Your task to perform on an android device: change text size in settings app Image 0: 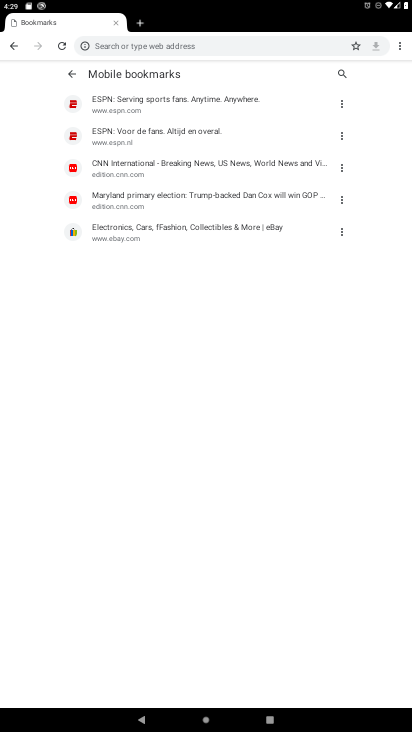
Step 0: press home button
Your task to perform on an android device: change text size in settings app Image 1: 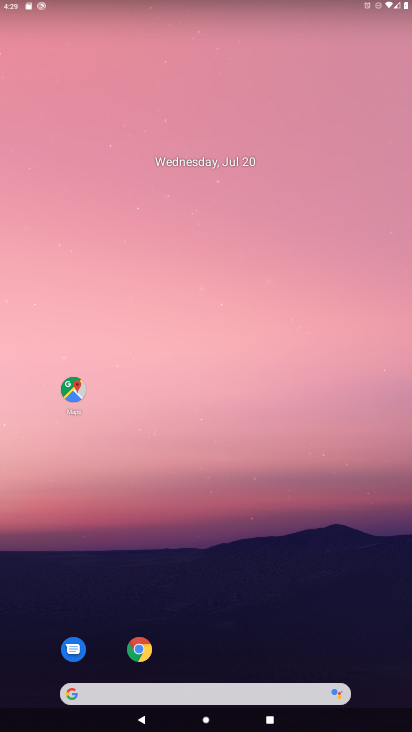
Step 1: drag from (196, 687) to (302, 190)
Your task to perform on an android device: change text size in settings app Image 2: 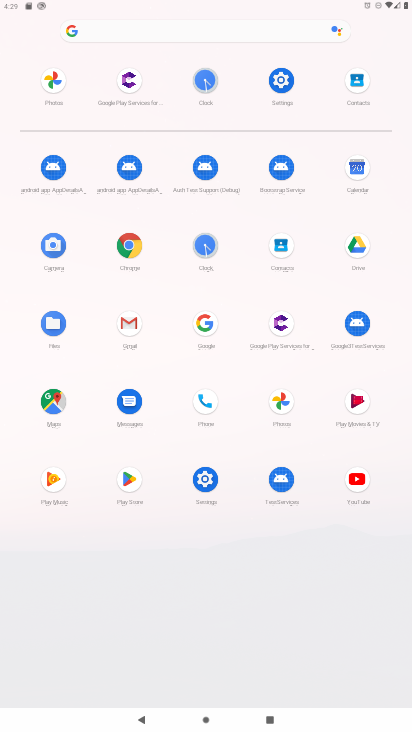
Step 2: click (205, 478)
Your task to perform on an android device: change text size in settings app Image 3: 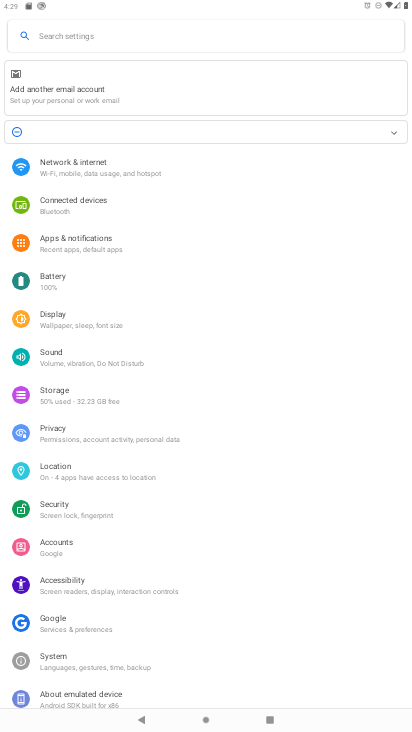
Step 3: click (58, 582)
Your task to perform on an android device: change text size in settings app Image 4: 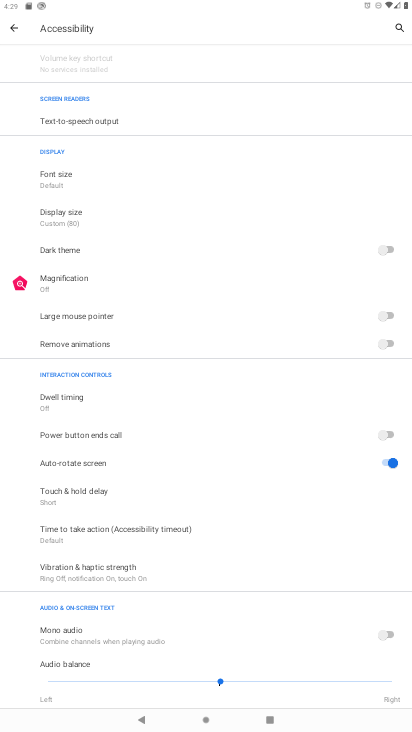
Step 4: click (70, 180)
Your task to perform on an android device: change text size in settings app Image 5: 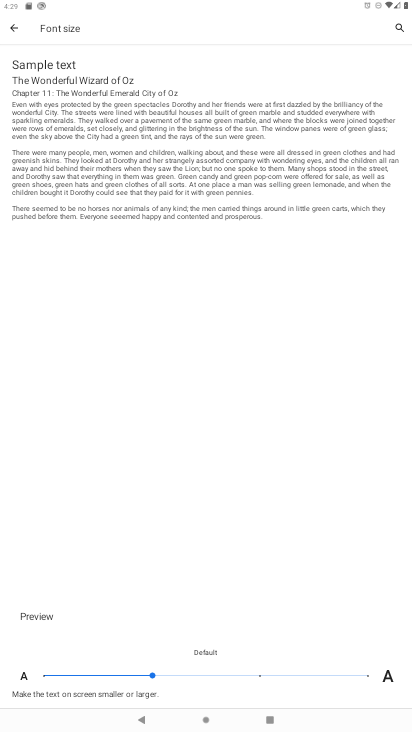
Step 5: click (363, 677)
Your task to perform on an android device: change text size in settings app Image 6: 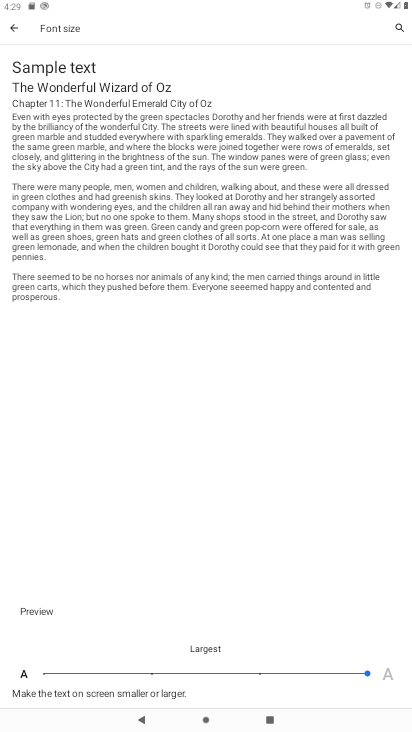
Step 6: task complete